Your task to perform on an android device: What's the weather today? Image 0: 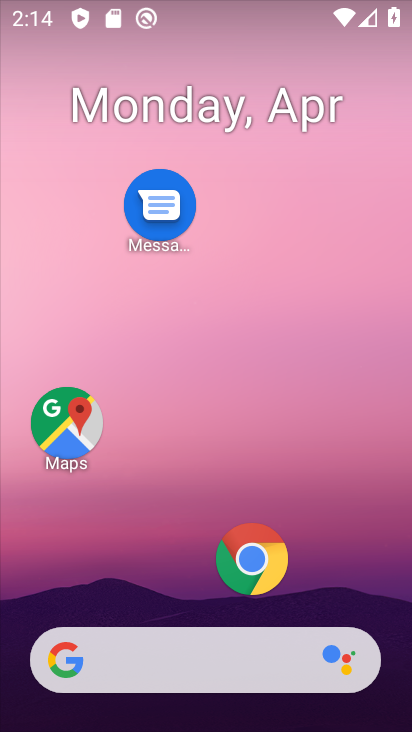
Step 0: click (166, 650)
Your task to perform on an android device: What's the weather today? Image 1: 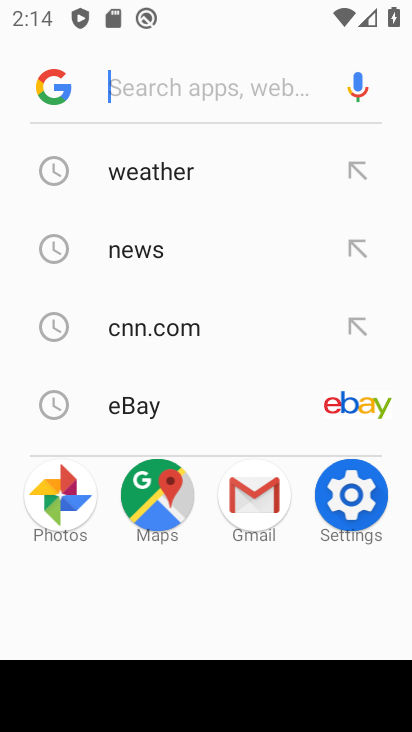
Step 1: click (177, 181)
Your task to perform on an android device: What's the weather today? Image 2: 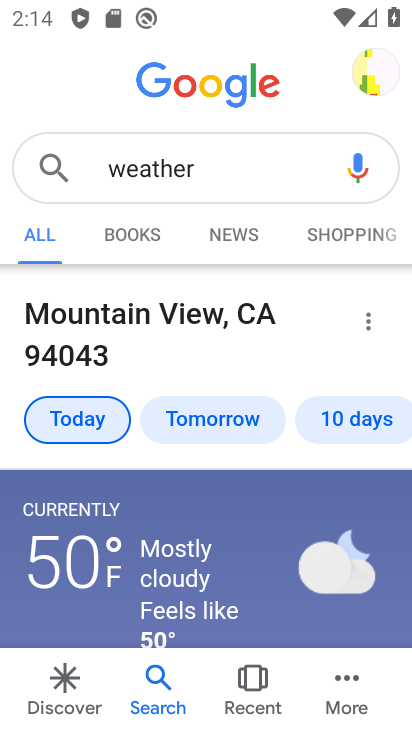
Step 2: task complete